Your task to perform on an android device: Show the shopping cart on ebay. Add logitech g933 to the cart on ebay Image 0: 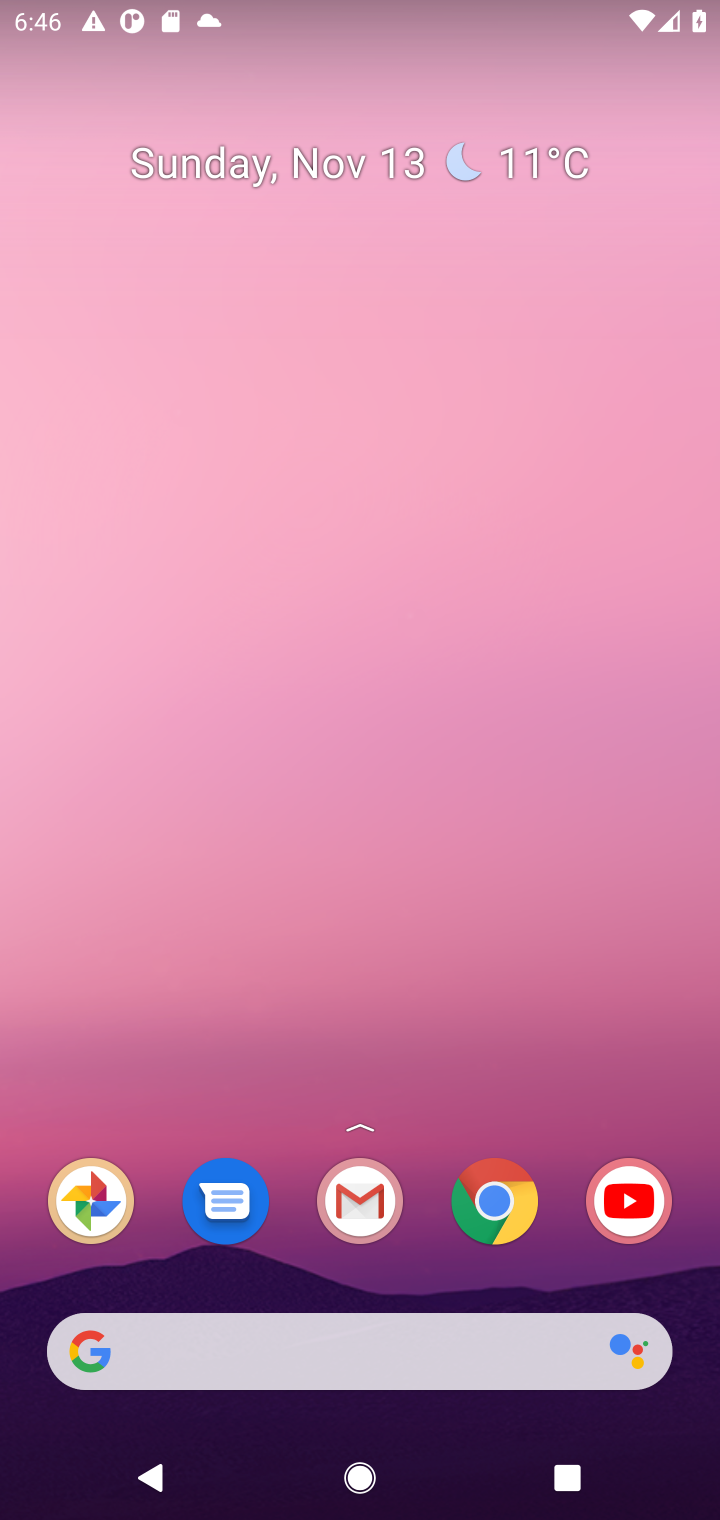
Step 0: press home button
Your task to perform on an android device: Show the shopping cart on ebay. Add logitech g933 to the cart on ebay Image 1: 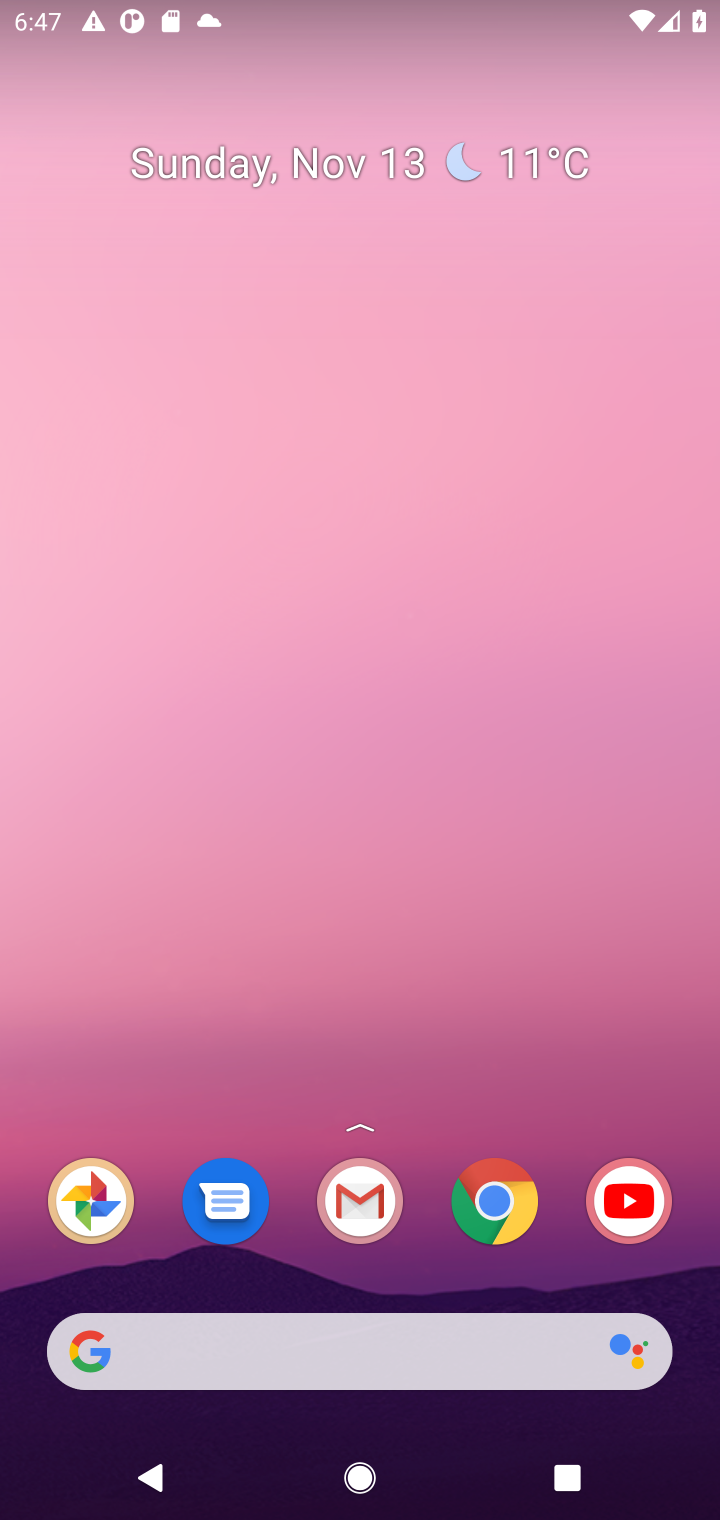
Step 1: drag from (428, 1249) to (360, 10)
Your task to perform on an android device: Show the shopping cart on ebay. Add logitech g933 to the cart on ebay Image 2: 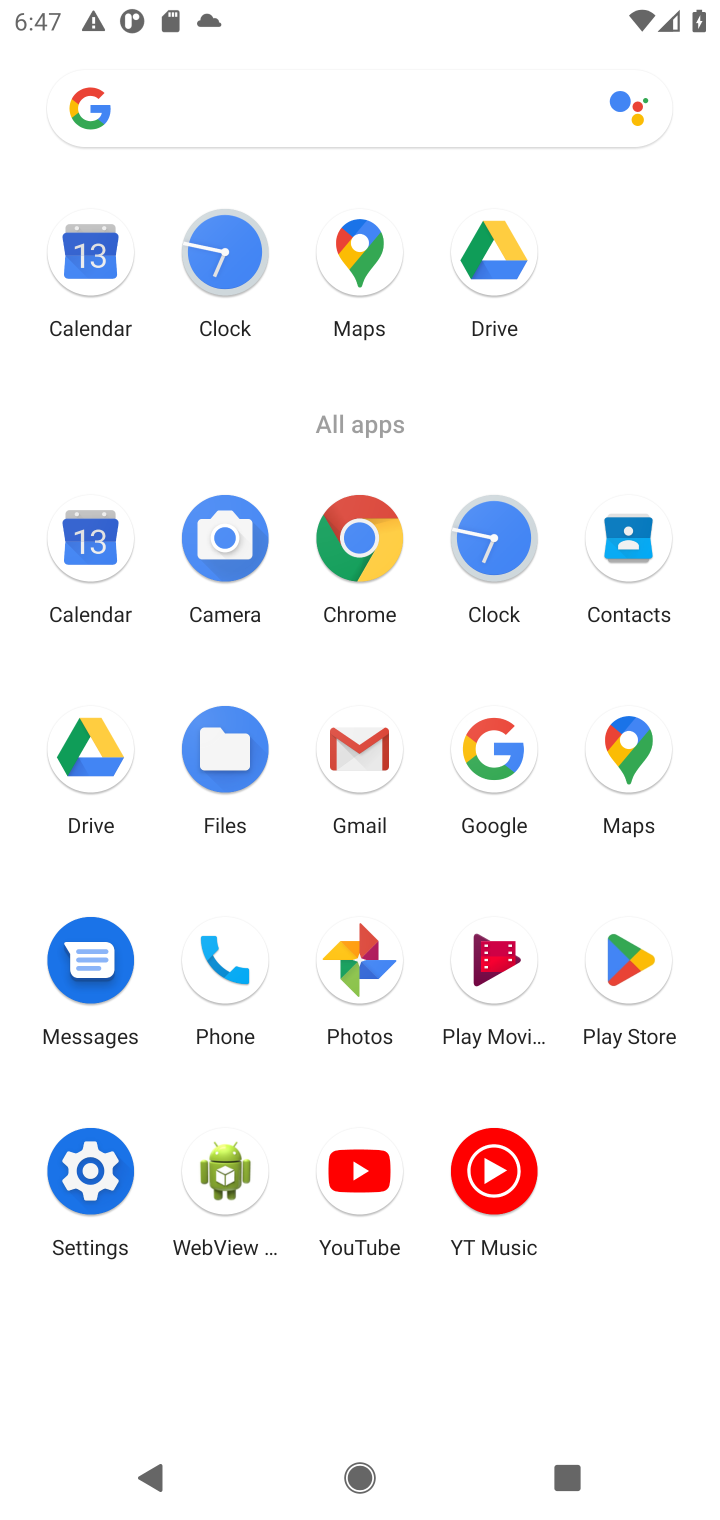
Step 2: click (361, 537)
Your task to perform on an android device: Show the shopping cart on ebay. Add logitech g933 to the cart on ebay Image 3: 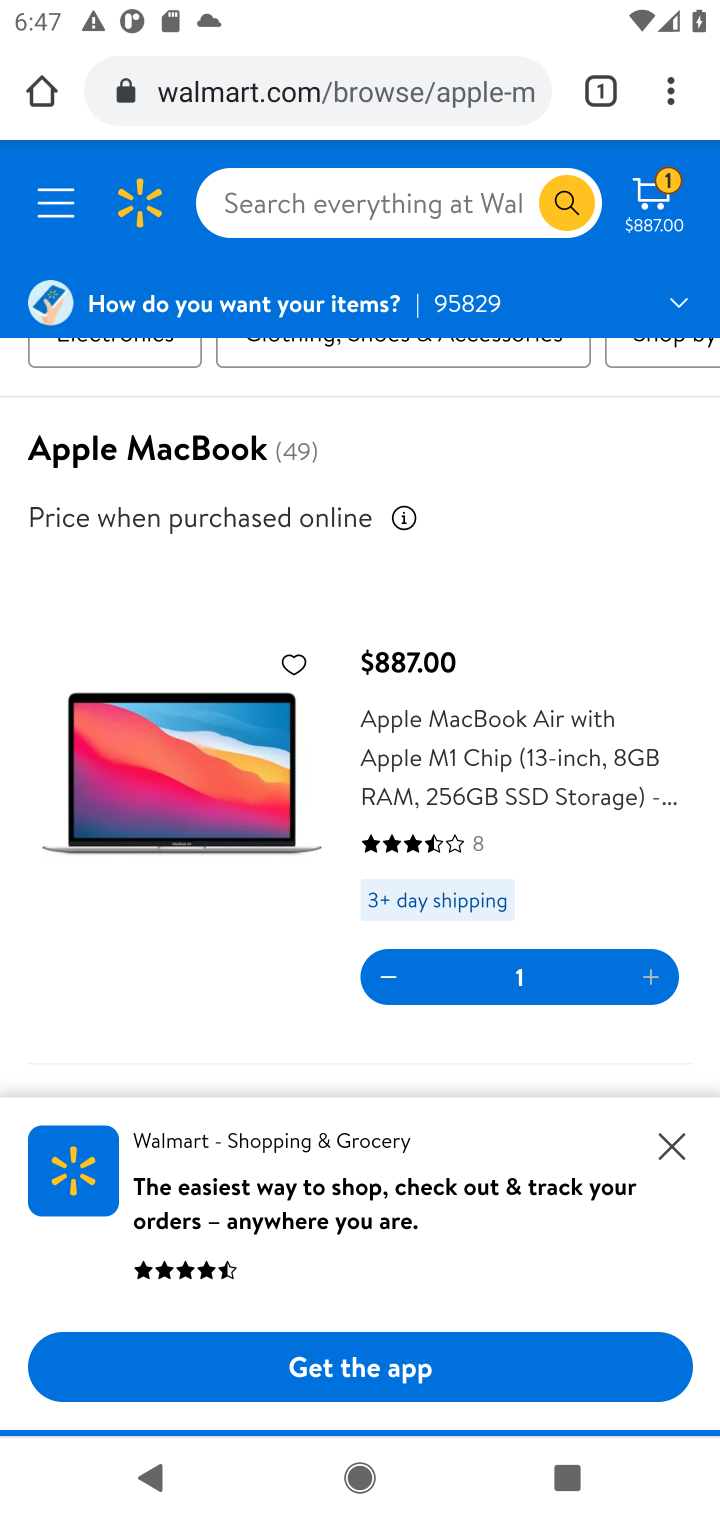
Step 3: click (404, 91)
Your task to perform on an android device: Show the shopping cart on ebay. Add logitech g933 to the cart on ebay Image 4: 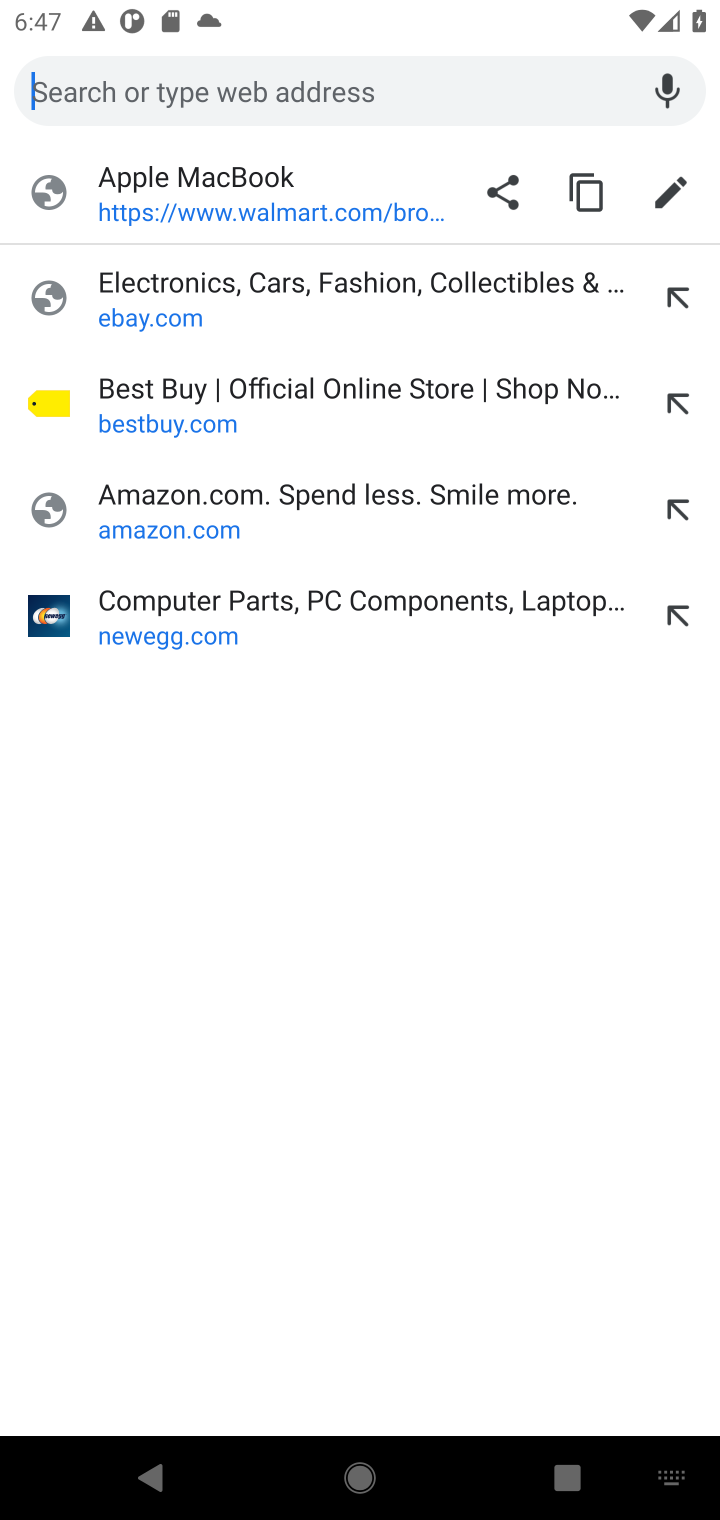
Step 4: press enter
Your task to perform on an android device: Show the shopping cart on ebay. Add logitech g933 to the cart on ebay Image 5: 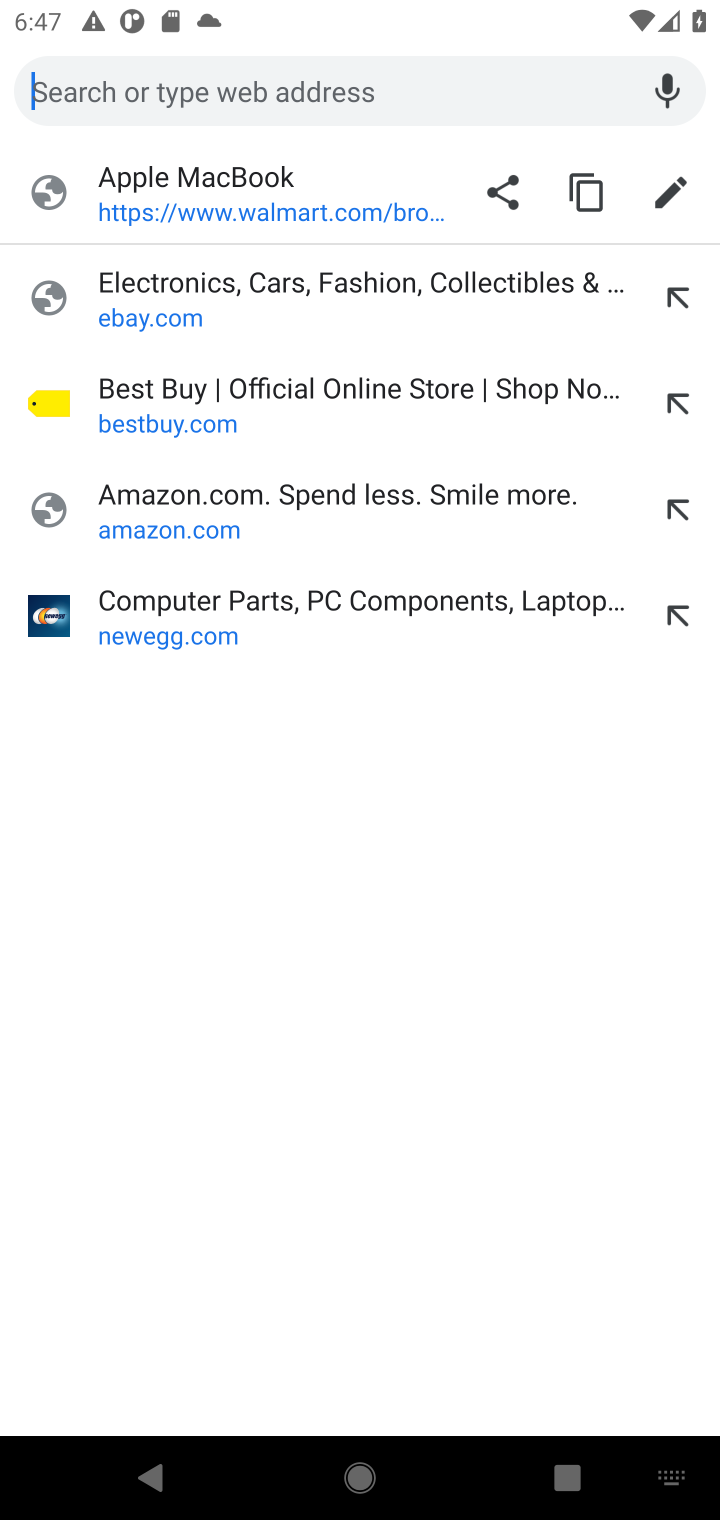
Step 5: type "ebay.com"
Your task to perform on an android device: Show the shopping cart on ebay. Add logitech g933 to the cart on ebay Image 6: 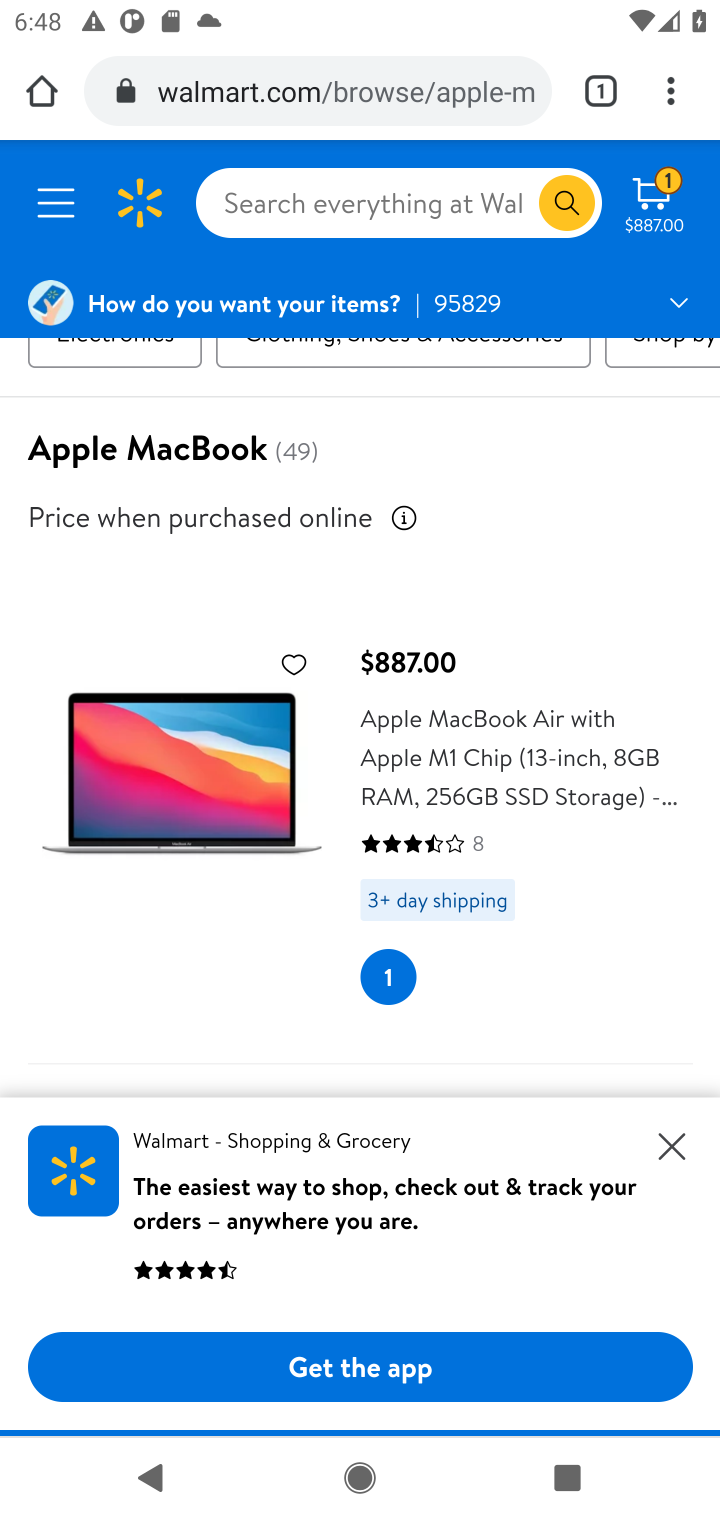
Step 6: click (284, 83)
Your task to perform on an android device: Show the shopping cart on ebay. Add logitech g933 to the cart on ebay Image 7: 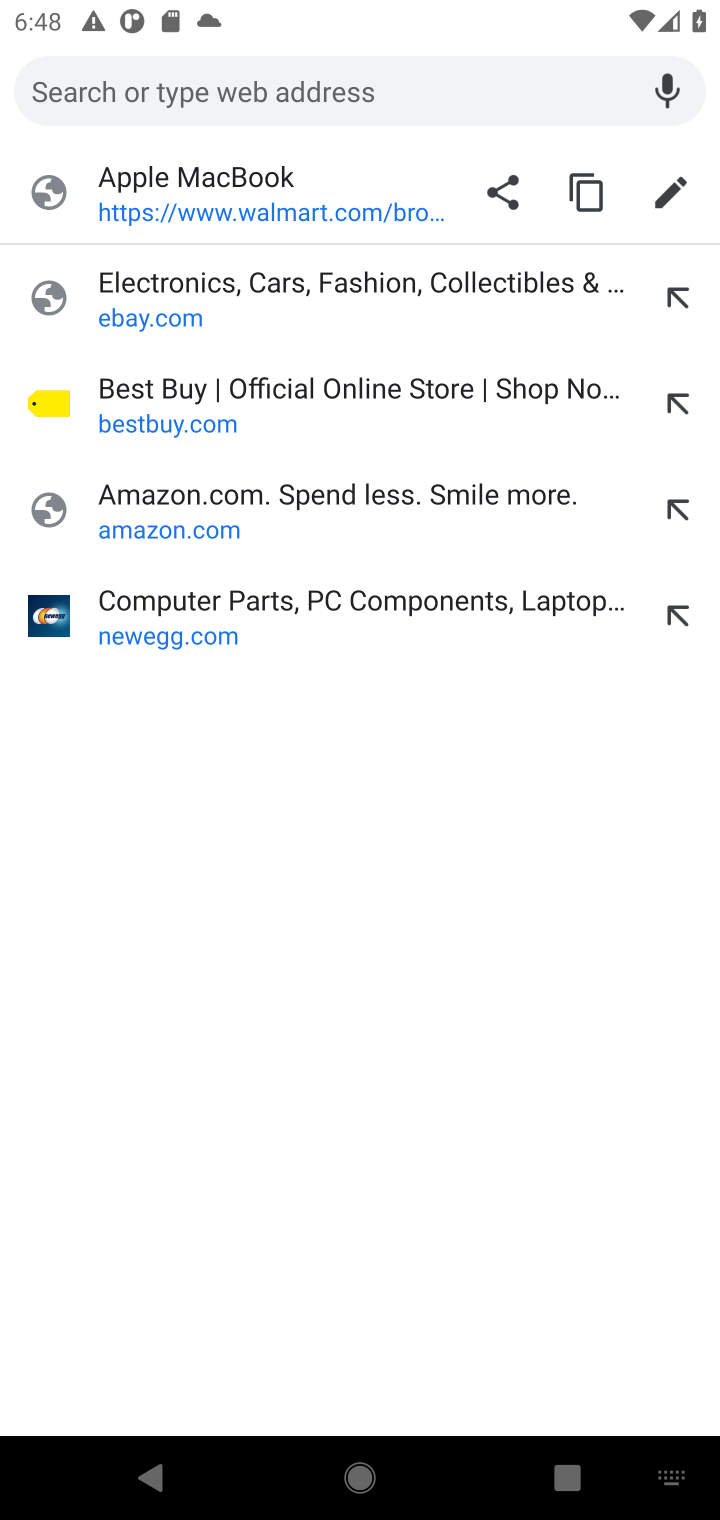
Step 7: type "ebay.com"
Your task to perform on an android device: Show the shopping cart on ebay. Add logitech g933 to the cart on ebay Image 8: 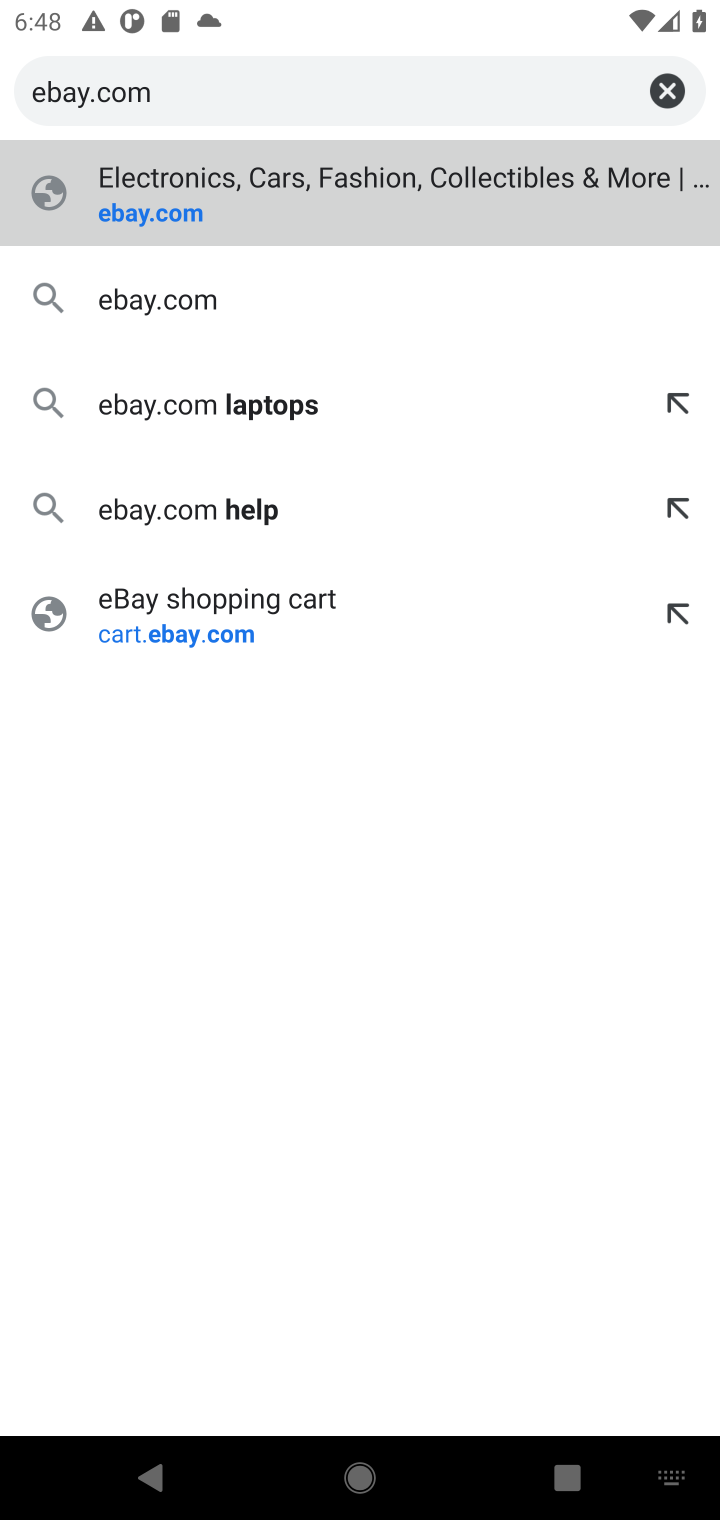
Step 8: press enter
Your task to perform on an android device: Show the shopping cart on ebay. Add logitech g933 to the cart on ebay Image 9: 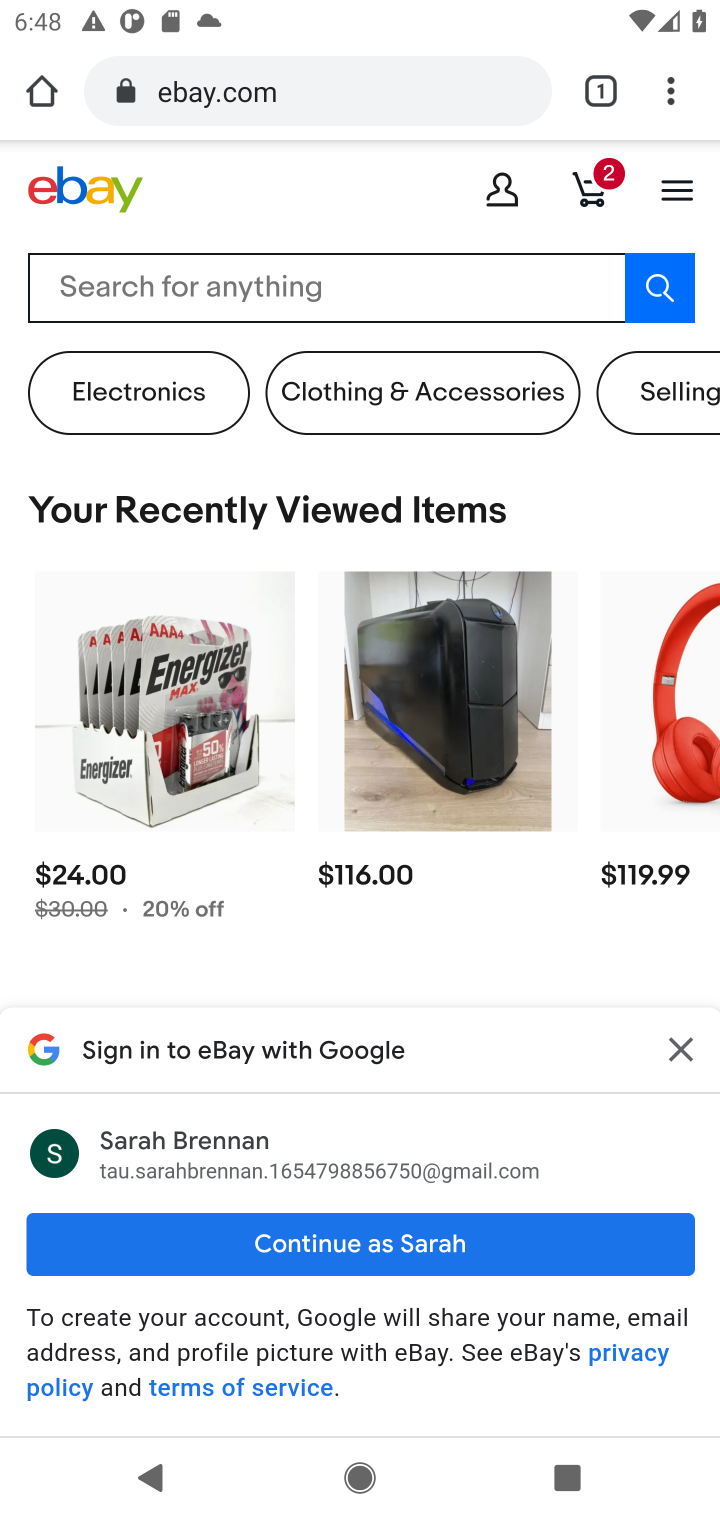
Step 9: click (593, 180)
Your task to perform on an android device: Show the shopping cart on ebay. Add logitech g933 to the cart on ebay Image 10: 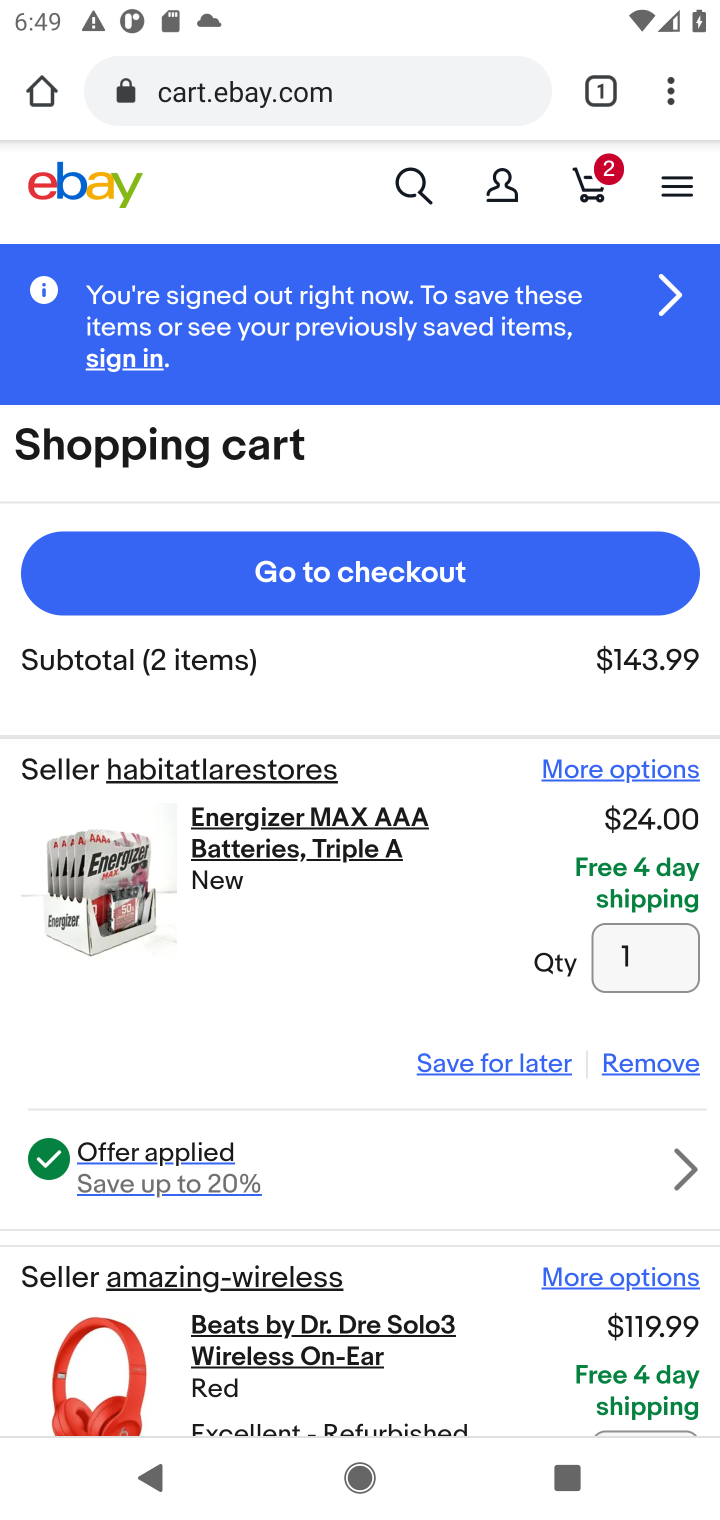
Step 10: click (402, 177)
Your task to perform on an android device: Show the shopping cart on ebay. Add logitech g933 to the cart on ebay Image 11: 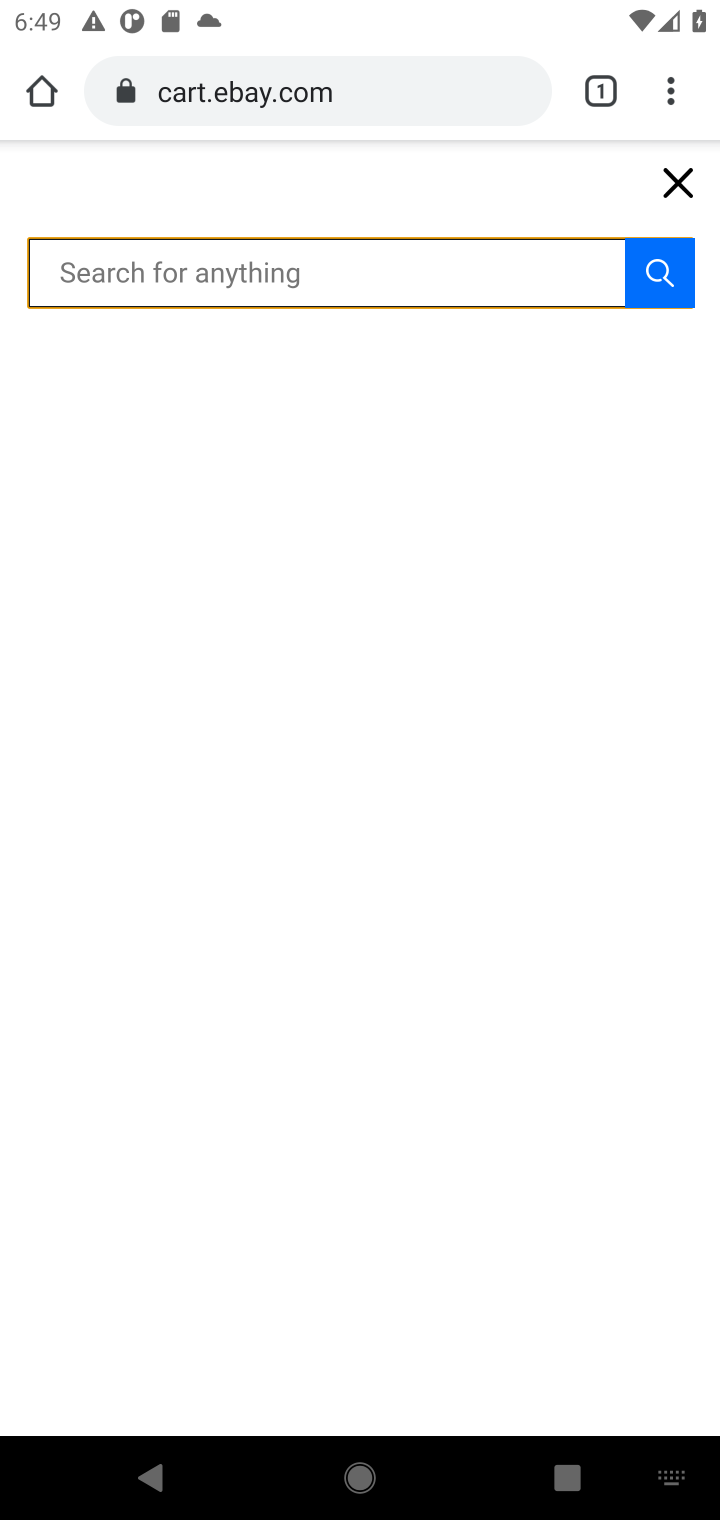
Step 11: type "logitech g933"
Your task to perform on an android device: Show the shopping cart on ebay. Add logitech g933 to the cart on ebay Image 12: 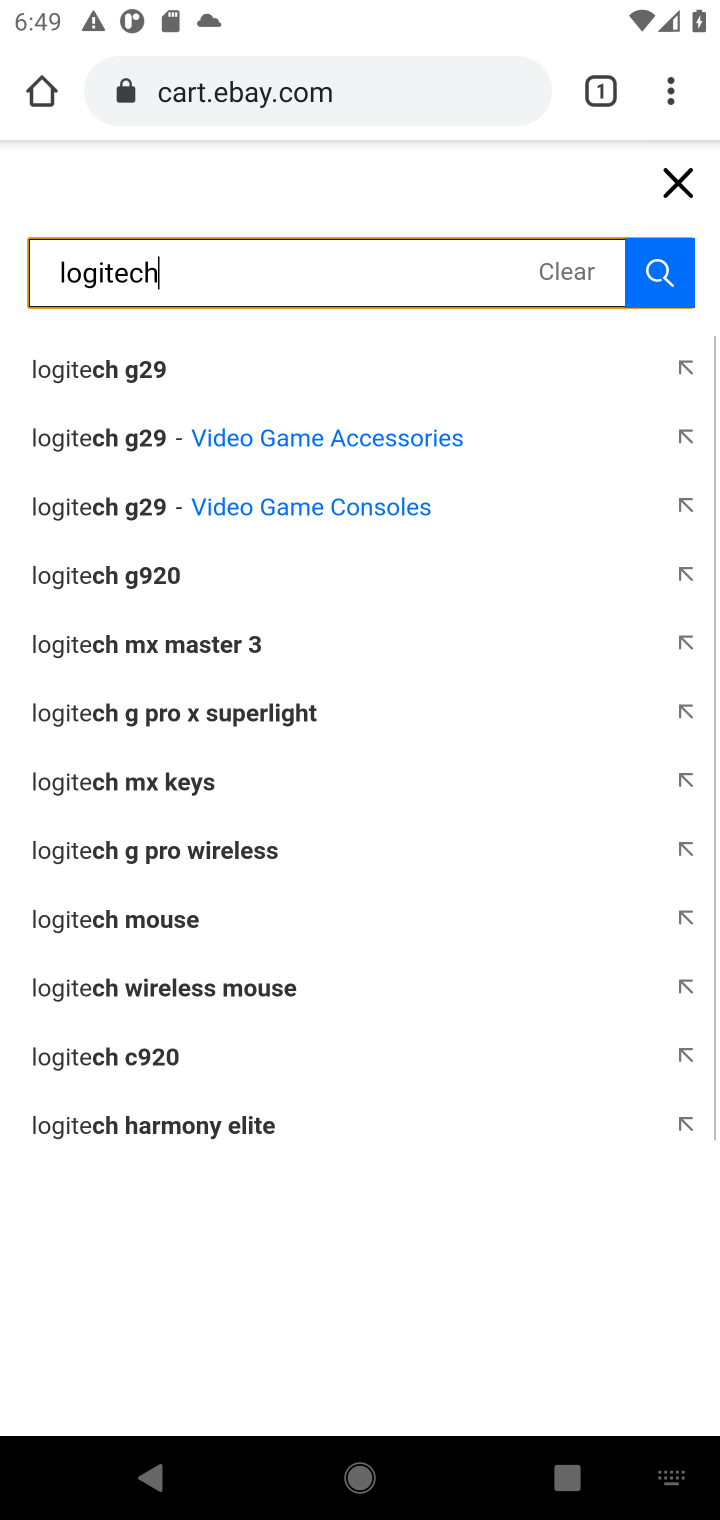
Step 12: press enter
Your task to perform on an android device: Show the shopping cart on ebay. Add logitech g933 to the cart on ebay Image 13: 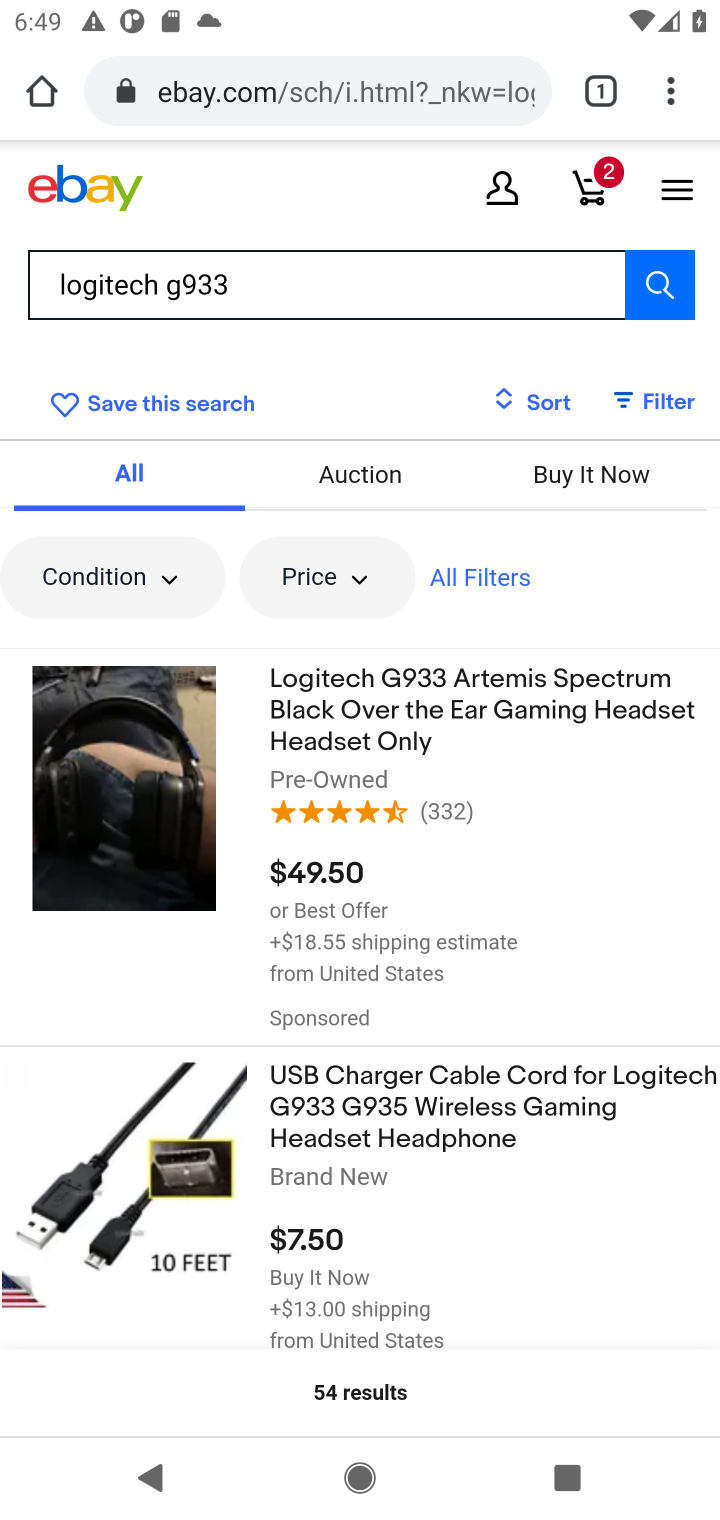
Step 13: click (113, 754)
Your task to perform on an android device: Show the shopping cart on ebay. Add logitech g933 to the cart on ebay Image 14: 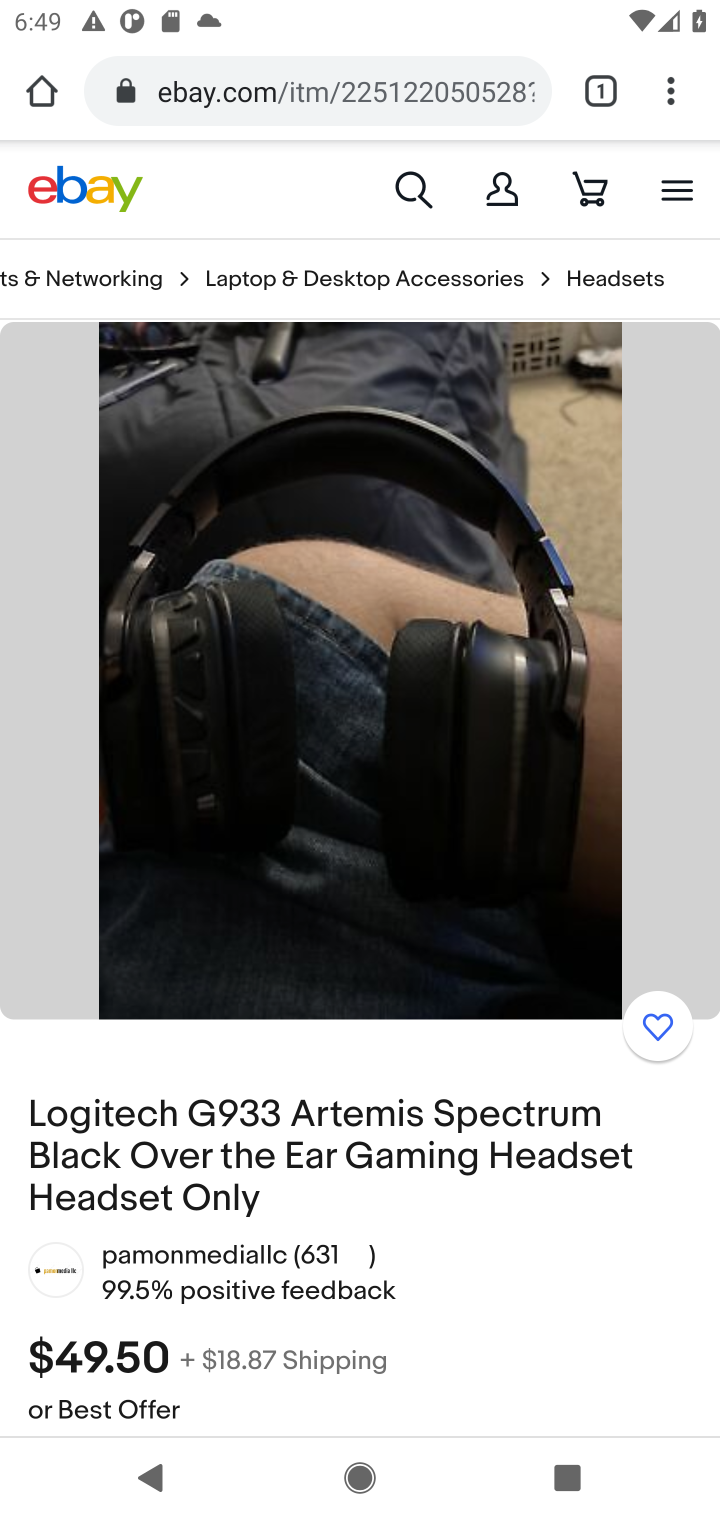
Step 14: drag from (425, 1198) to (321, 514)
Your task to perform on an android device: Show the shopping cart on ebay. Add logitech g933 to the cart on ebay Image 15: 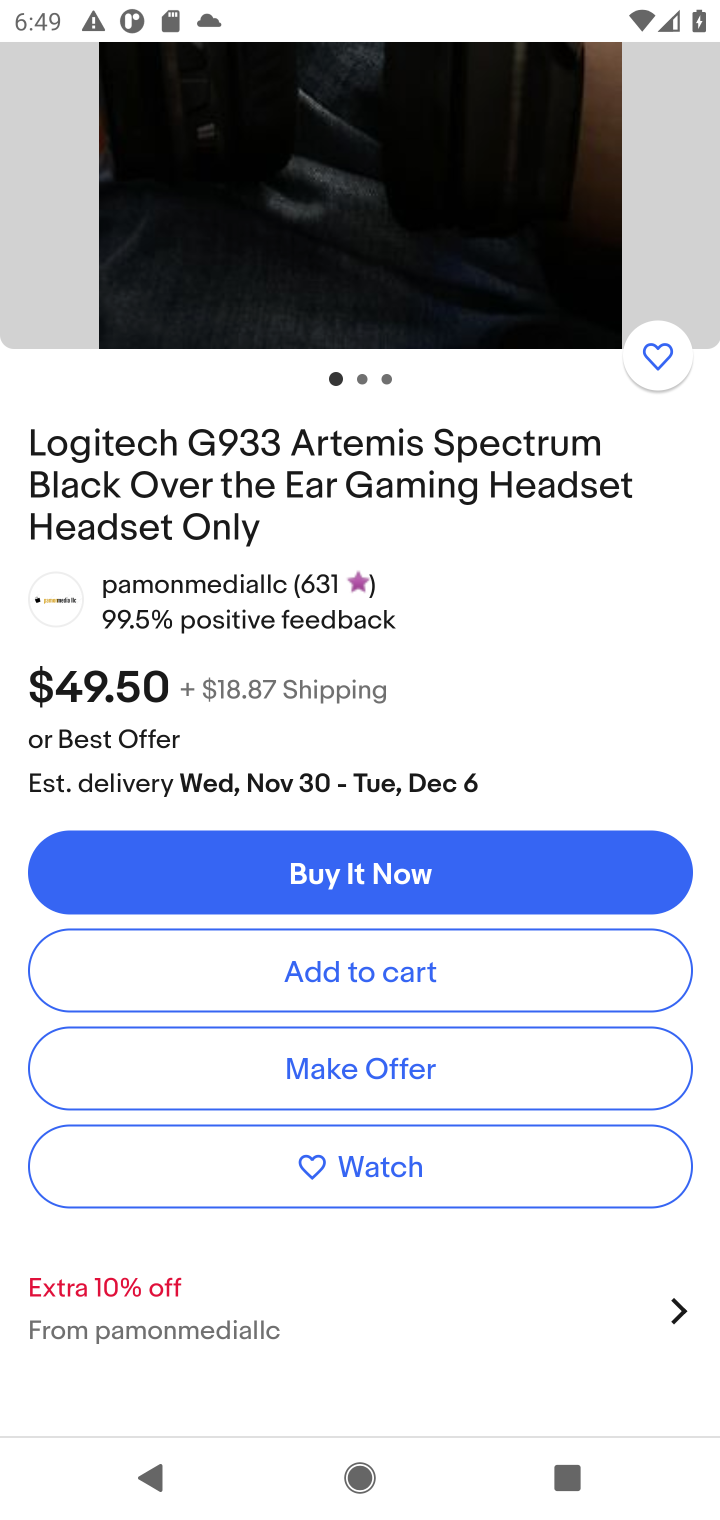
Step 15: click (411, 971)
Your task to perform on an android device: Show the shopping cart on ebay. Add logitech g933 to the cart on ebay Image 16: 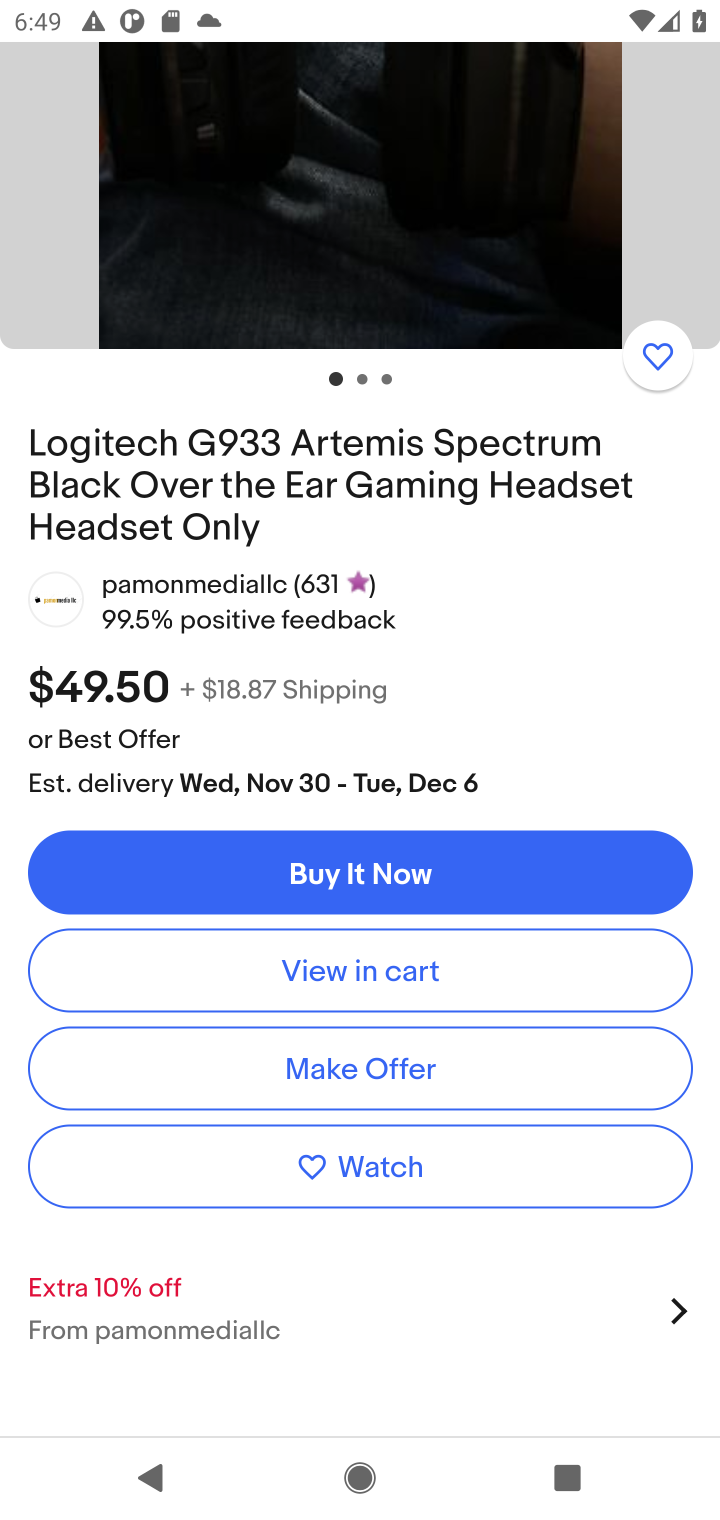
Step 16: task complete